Your task to perform on an android device: Search for Mexican restaurants on Maps Image 0: 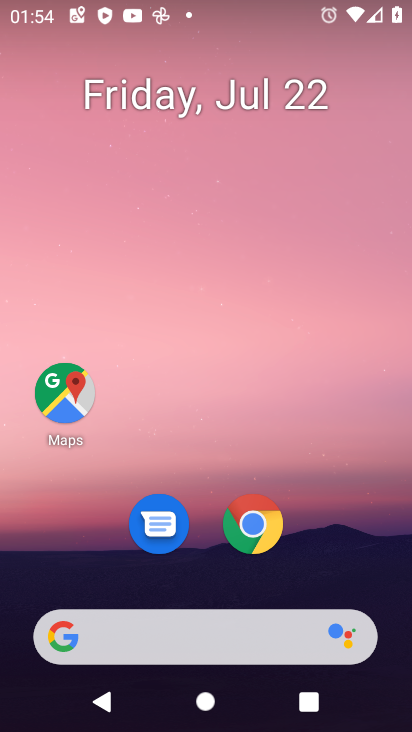
Step 0: press home button
Your task to perform on an android device: Search for Mexican restaurants on Maps Image 1: 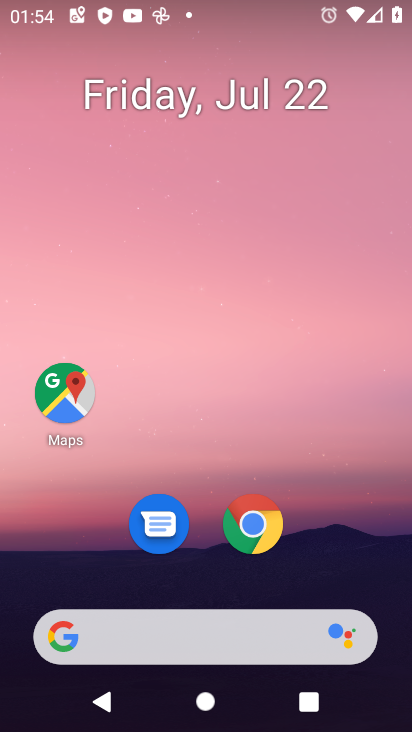
Step 1: click (77, 413)
Your task to perform on an android device: Search for Mexican restaurants on Maps Image 2: 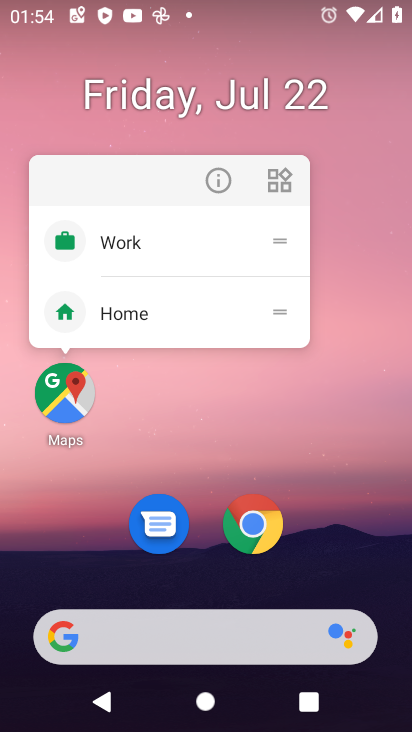
Step 2: click (63, 400)
Your task to perform on an android device: Search for Mexican restaurants on Maps Image 3: 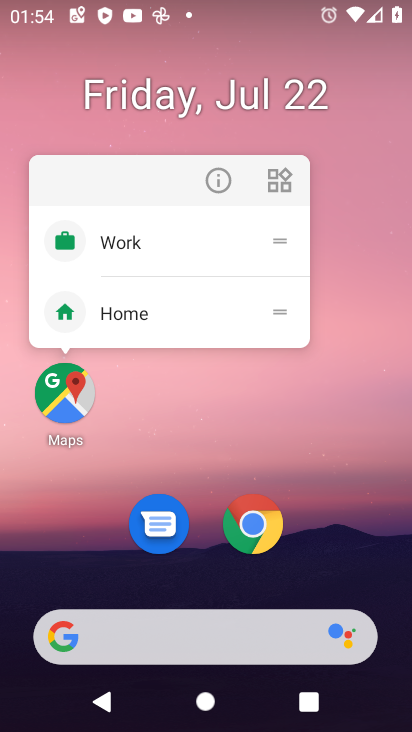
Step 3: click (62, 401)
Your task to perform on an android device: Search for Mexican restaurants on Maps Image 4: 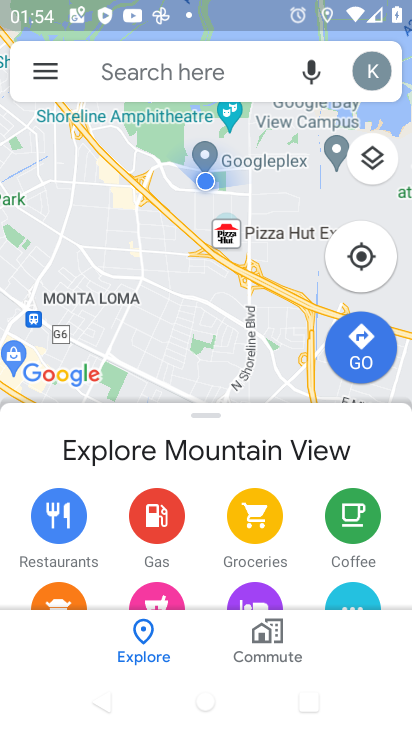
Step 4: click (197, 62)
Your task to perform on an android device: Search for Mexican restaurants on Maps Image 5: 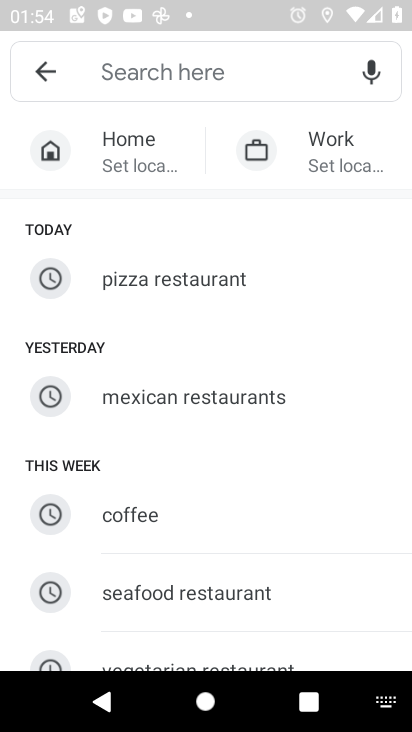
Step 5: click (124, 396)
Your task to perform on an android device: Search for Mexican restaurants on Maps Image 6: 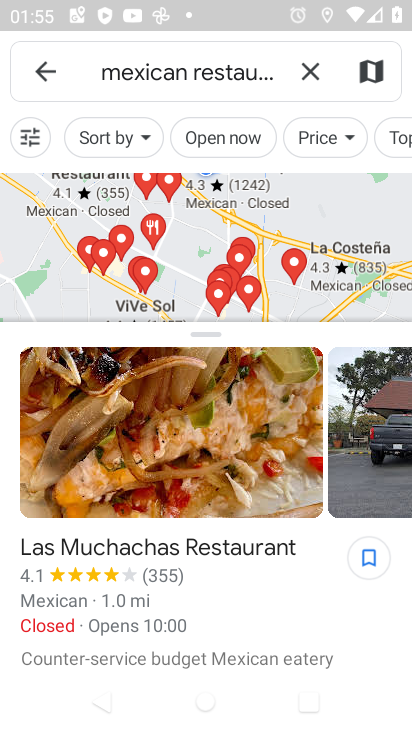
Step 6: task complete